Your task to perform on an android device: Go to Yahoo.com Image 0: 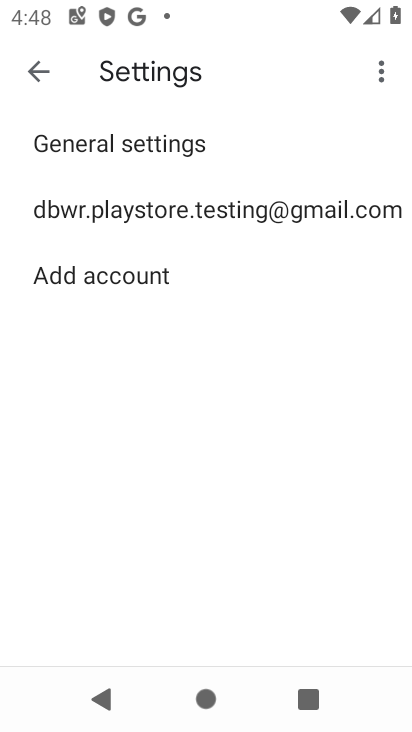
Step 0: press home button
Your task to perform on an android device: Go to Yahoo.com Image 1: 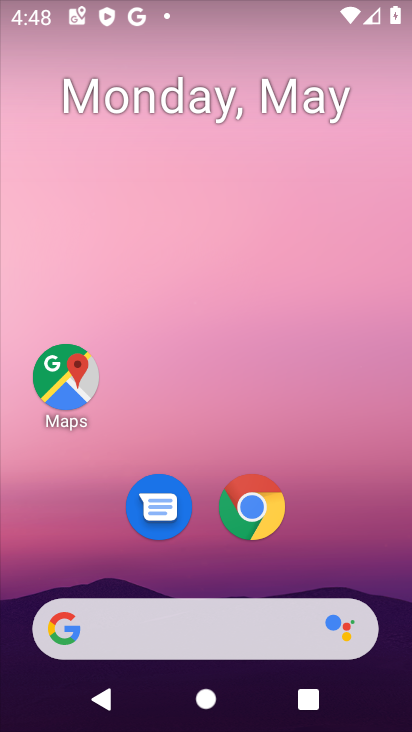
Step 1: click (259, 494)
Your task to perform on an android device: Go to Yahoo.com Image 2: 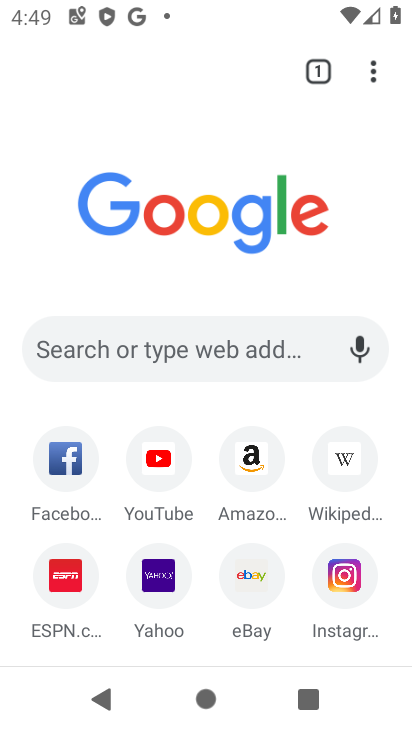
Step 2: click (145, 600)
Your task to perform on an android device: Go to Yahoo.com Image 3: 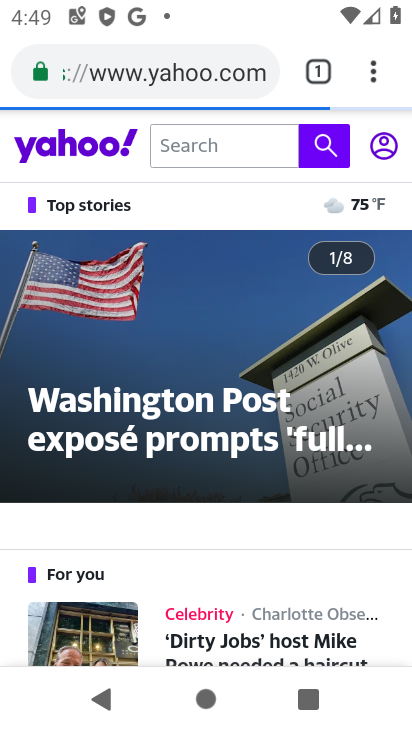
Step 3: task complete